Your task to perform on an android device: Search for vegetarian restaurants on Maps Image 0: 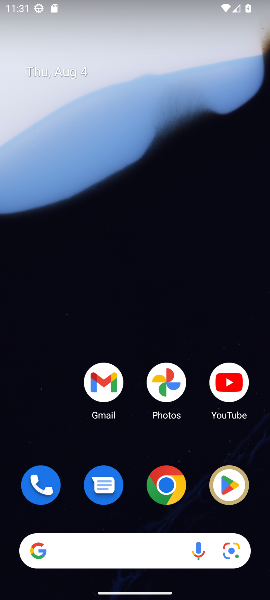
Step 0: drag from (133, 524) to (153, 13)
Your task to perform on an android device: Search for vegetarian restaurants on Maps Image 1: 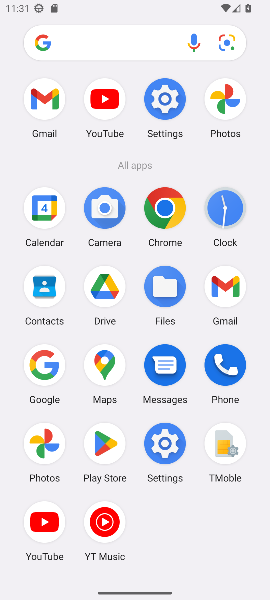
Step 1: click (103, 361)
Your task to perform on an android device: Search for vegetarian restaurants on Maps Image 2: 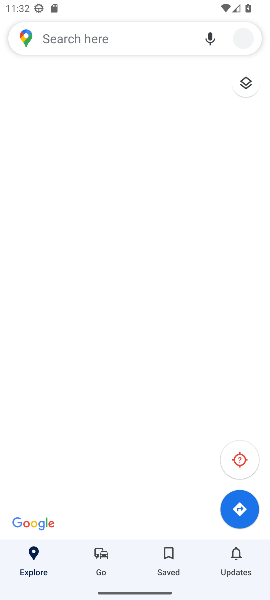
Step 2: click (125, 44)
Your task to perform on an android device: Search for vegetarian restaurants on Maps Image 3: 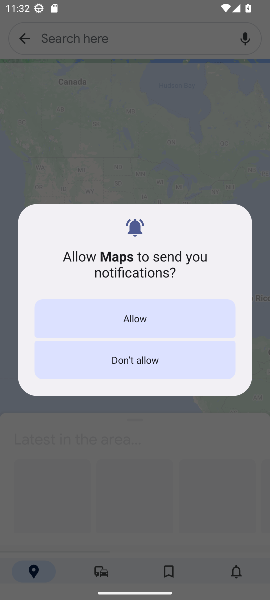
Step 3: click (132, 320)
Your task to perform on an android device: Search for vegetarian restaurants on Maps Image 4: 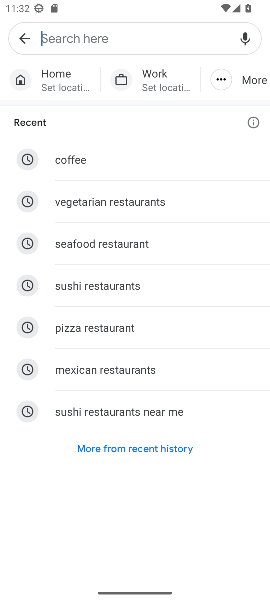
Step 4: type "vegetarian restaurants"
Your task to perform on an android device: Search for vegetarian restaurants on Maps Image 5: 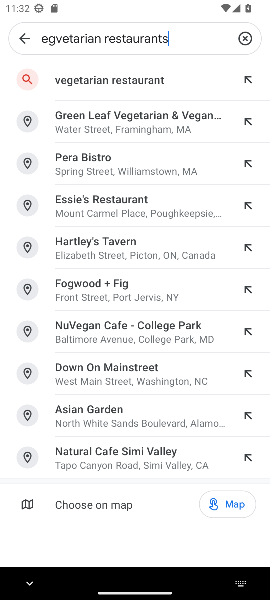
Step 5: click (121, 81)
Your task to perform on an android device: Search for vegetarian restaurants on Maps Image 6: 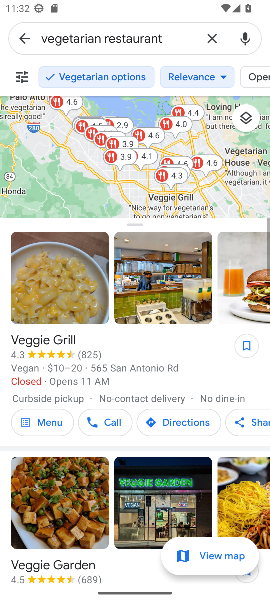
Step 6: task complete